Your task to perform on an android device: Open calendar and show me the fourth week of next month Image 0: 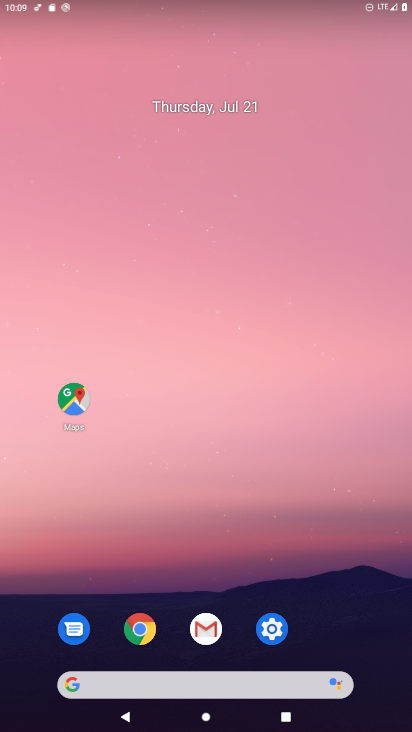
Step 0: drag from (270, 695) to (300, 99)
Your task to perform on an android device: Open calendar and show me the fourth week of next month Image 1: 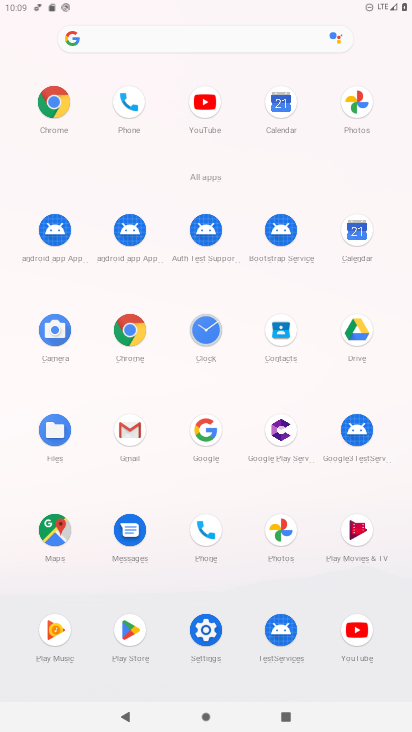
Step 1: click (349, 244)
Your task to perform on an android device: Open calendar and show me the fourth week of next month Image 2: 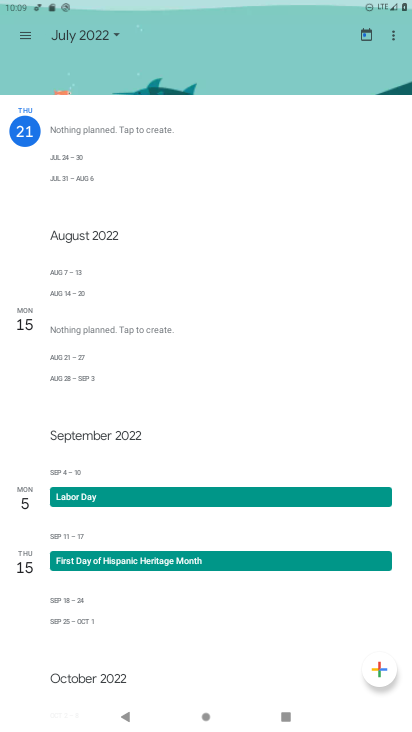
Step 2: click (29, 35)
Your task to perform on an android device: Open calendar and show me the fourth week of next month Image 3: 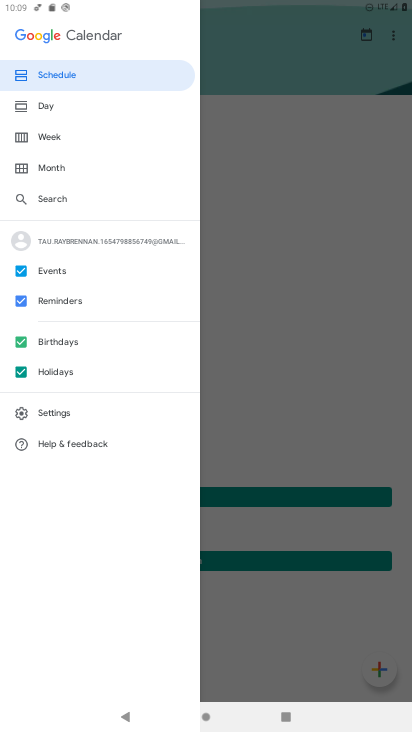
Step 3: click (45, 172)
Your task to perform on an android device: Open calendar and show me the fourth week of next month Image 4: 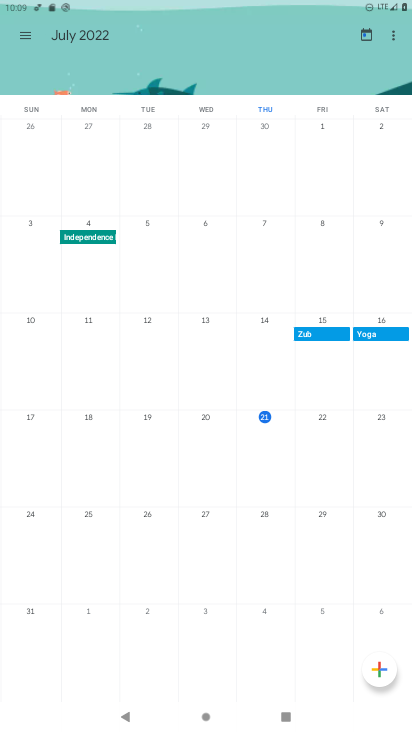
Step 4: drag from (398, 345) to (3, 457)
Your task to perform on an android device: Open calendar and show me the fourth week of next month Image 5: 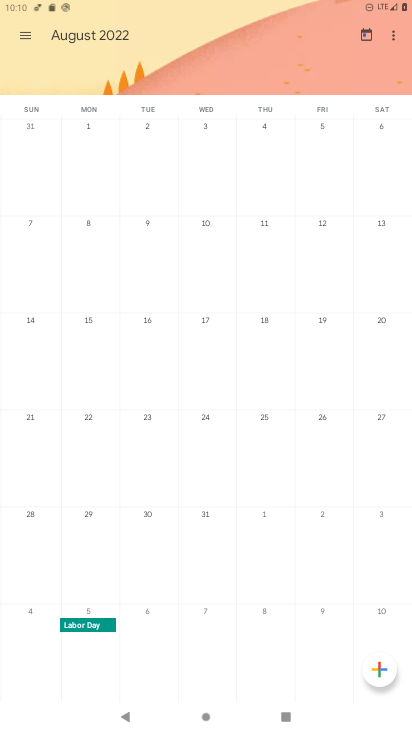
Step 5: click (93, 412)
Your task to perform on an android device: Open calendar and show me the fourth week of next month Image 6: 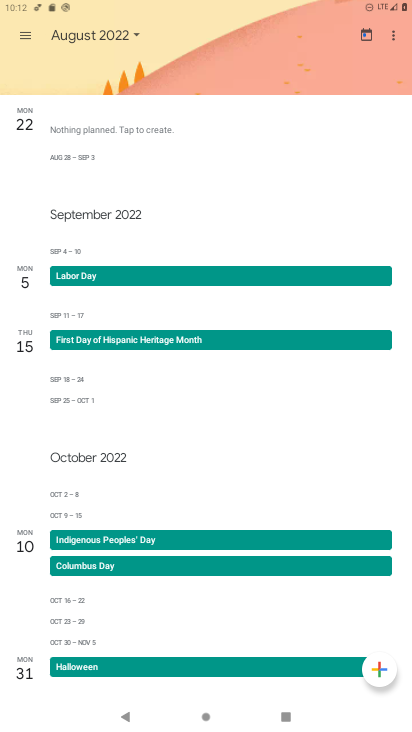
Step 6: task complete